Your task to perform on an android device: Open display settings Image 0: 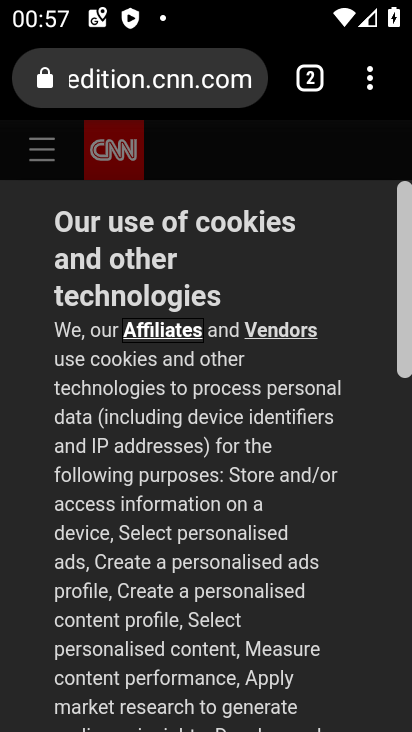
Step 0: task complete